Your task to perform on an android device: Open Google Image 0: 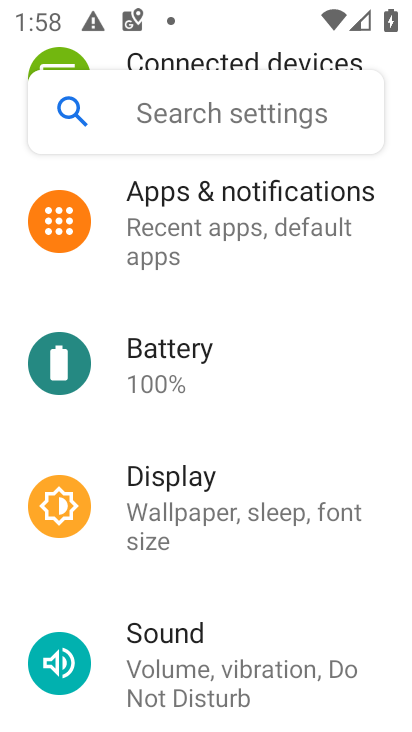
Step 0: press home button
Your task to perform on an android device: Open Google Image 1: 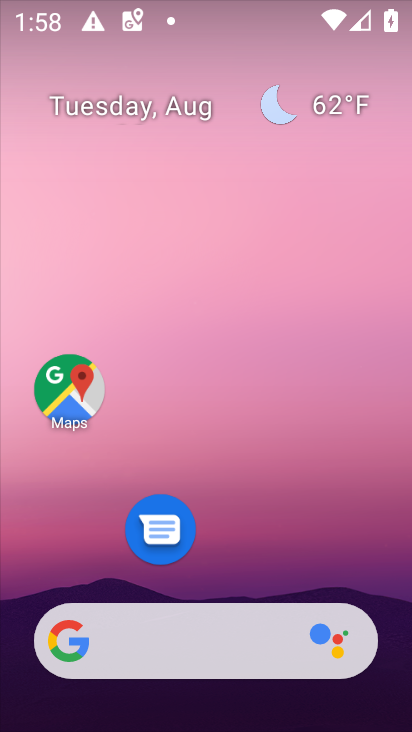
Step 1: click (182, 656)
Your task to perform on an android device: Open Google Image 2: 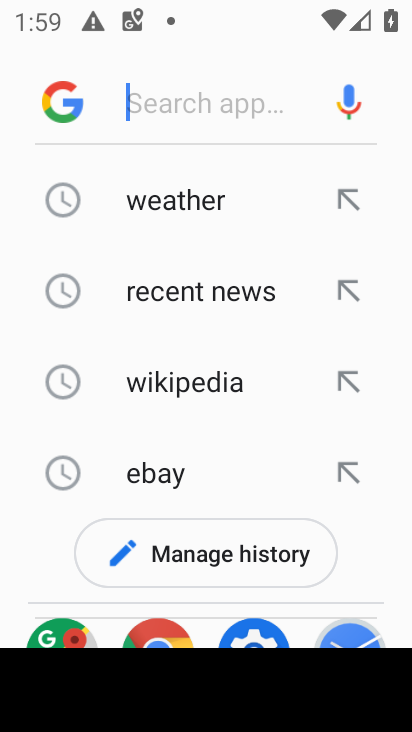
Step 2: type "google"
Your task to perform on an android device: Open Google Image 3: 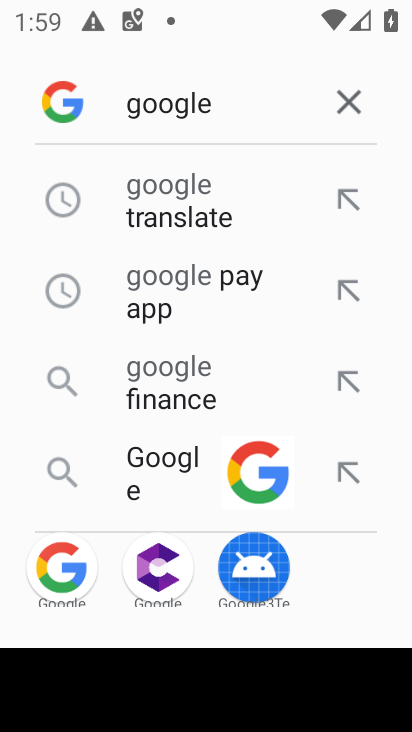
Step 3: click (156, 445)
Your task to perform on an android device: Open Google Image 4: 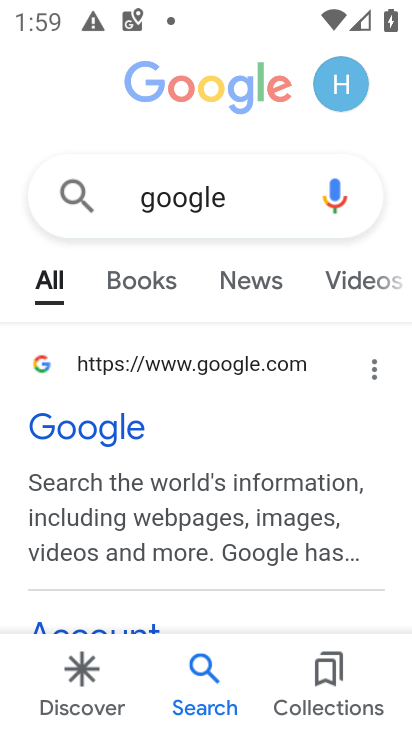
Step 4: task complete